Your task to perform on an android device: Find coffee shops on Maps Image 0: 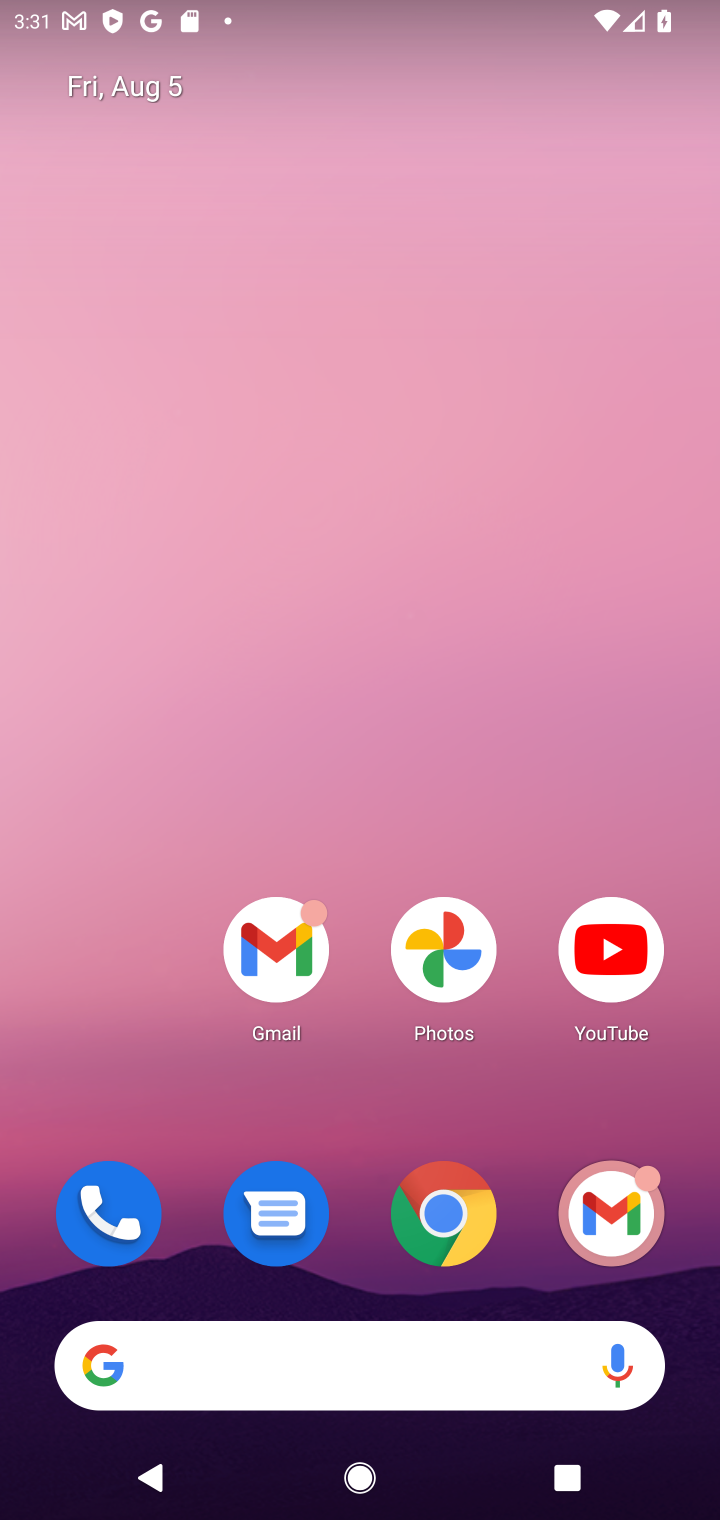
Step 0: drag from (373, 1256) to (273, 151)
Your task to perform on an android device: Find coffee shops on Maps Image 1: 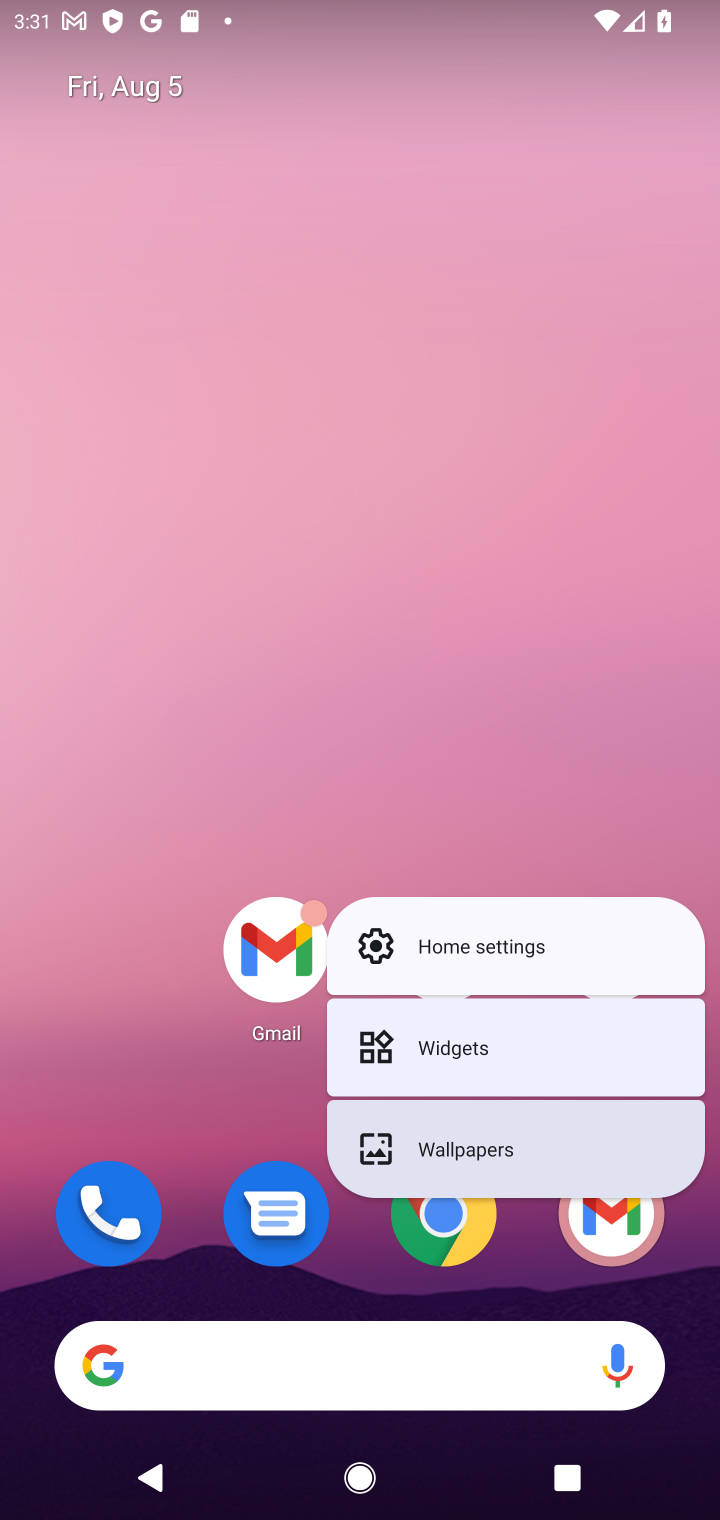
Step 1: click (273, 151)
Your task to perform on an android device: Find coffee shops on Maps Image 2: 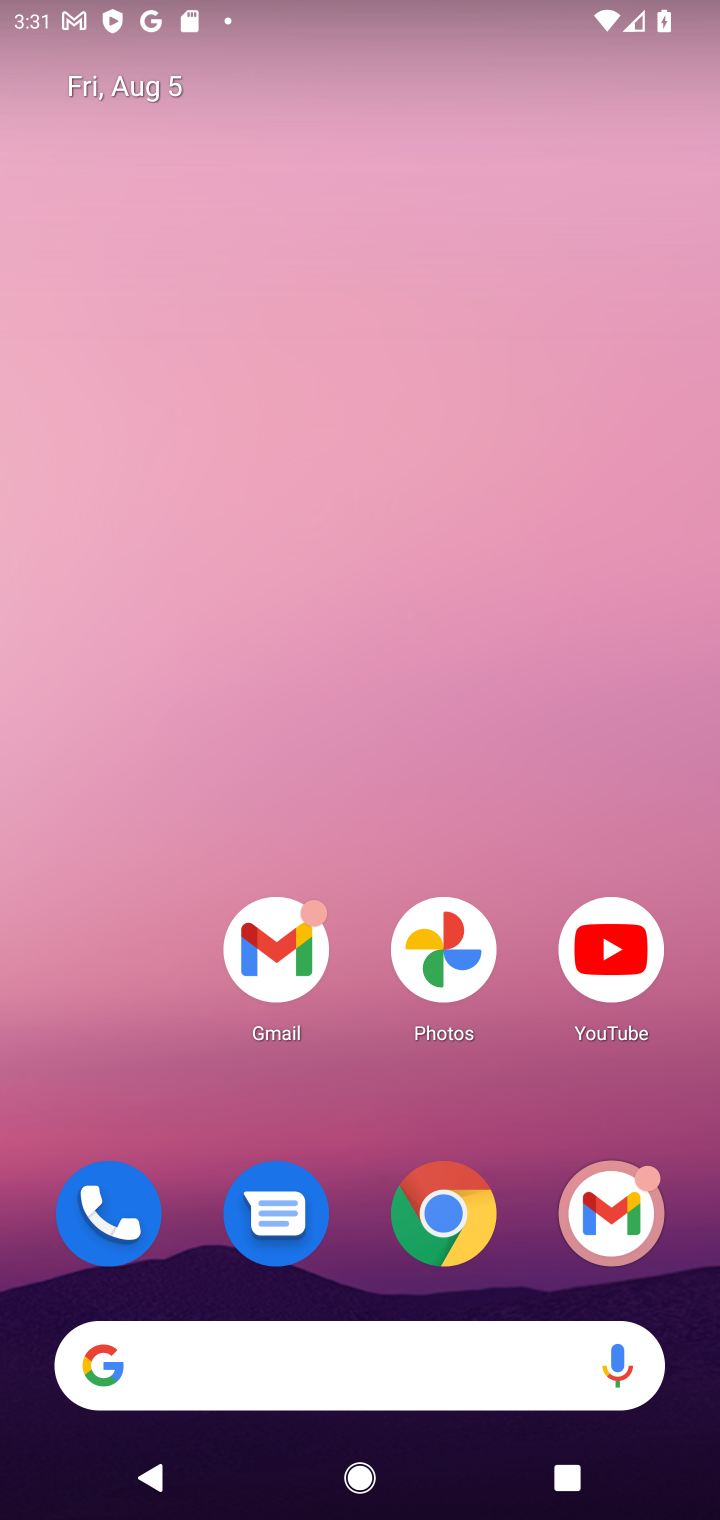
Step 2: drag from (202, 1295) to (408, 231)
Your task to perform on an android device: Find coffee shops on Maps Image 3: 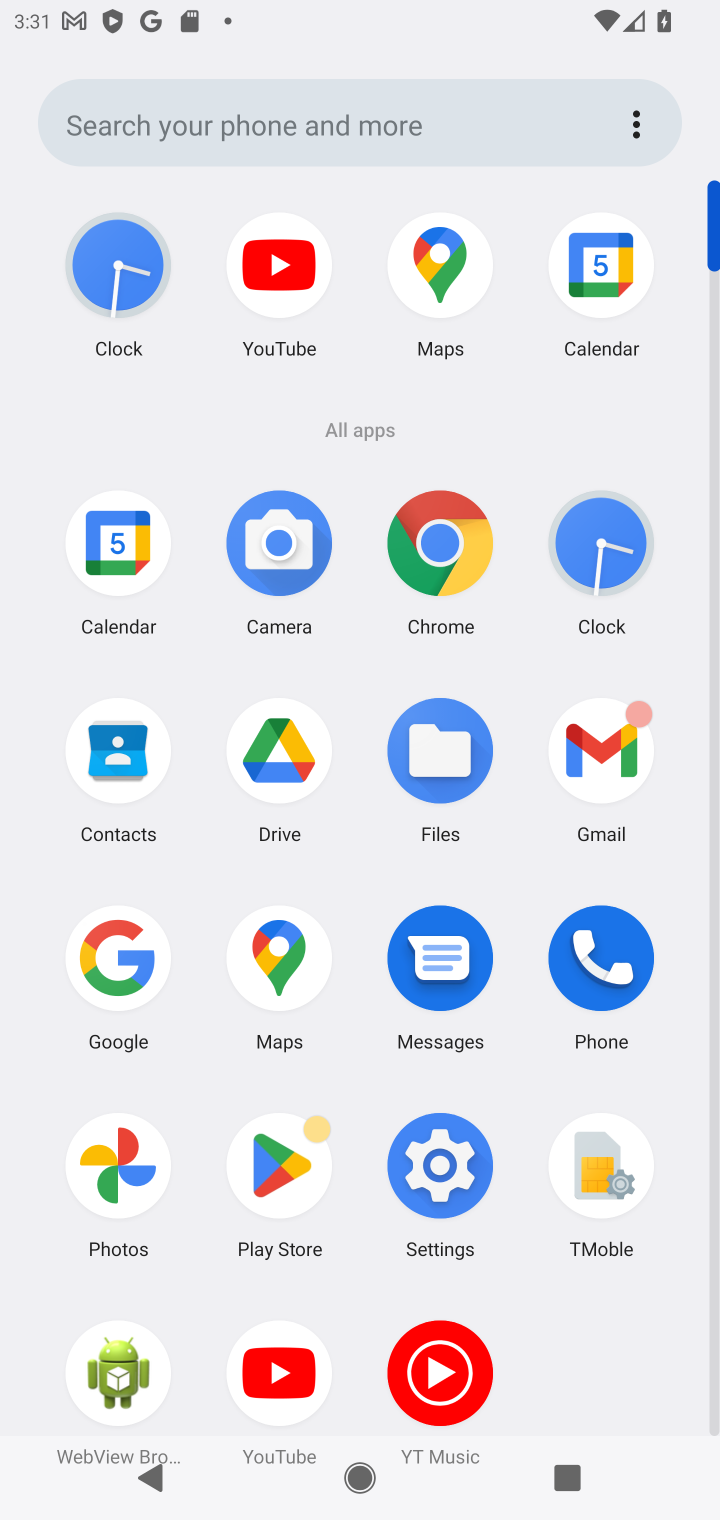
Step 3: click (285, 973)
Your task to perform on an android device: Find coffee shops on Maps Image 4: 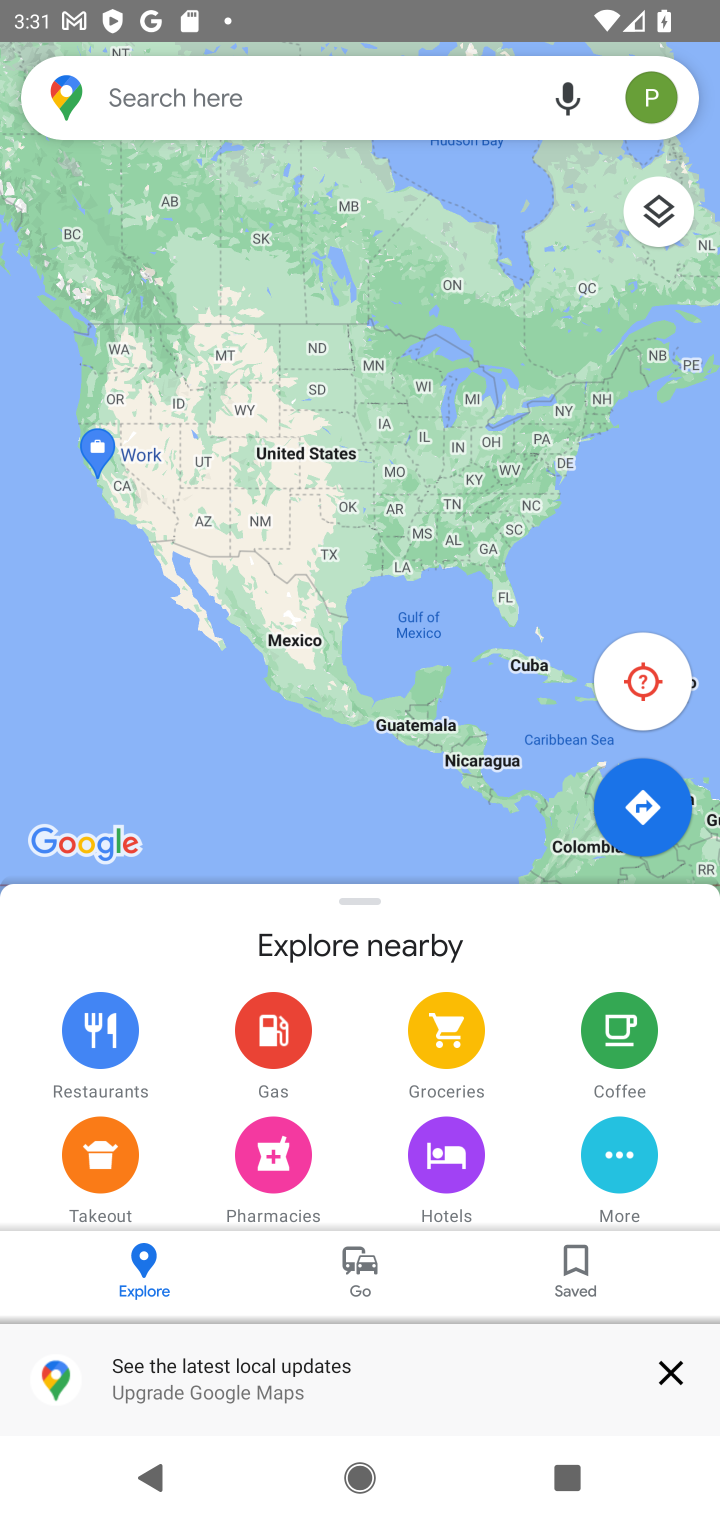
Step 4: click (437, 74)
Your task to perform on an android device: Find coffee shops on Maps Image 5: 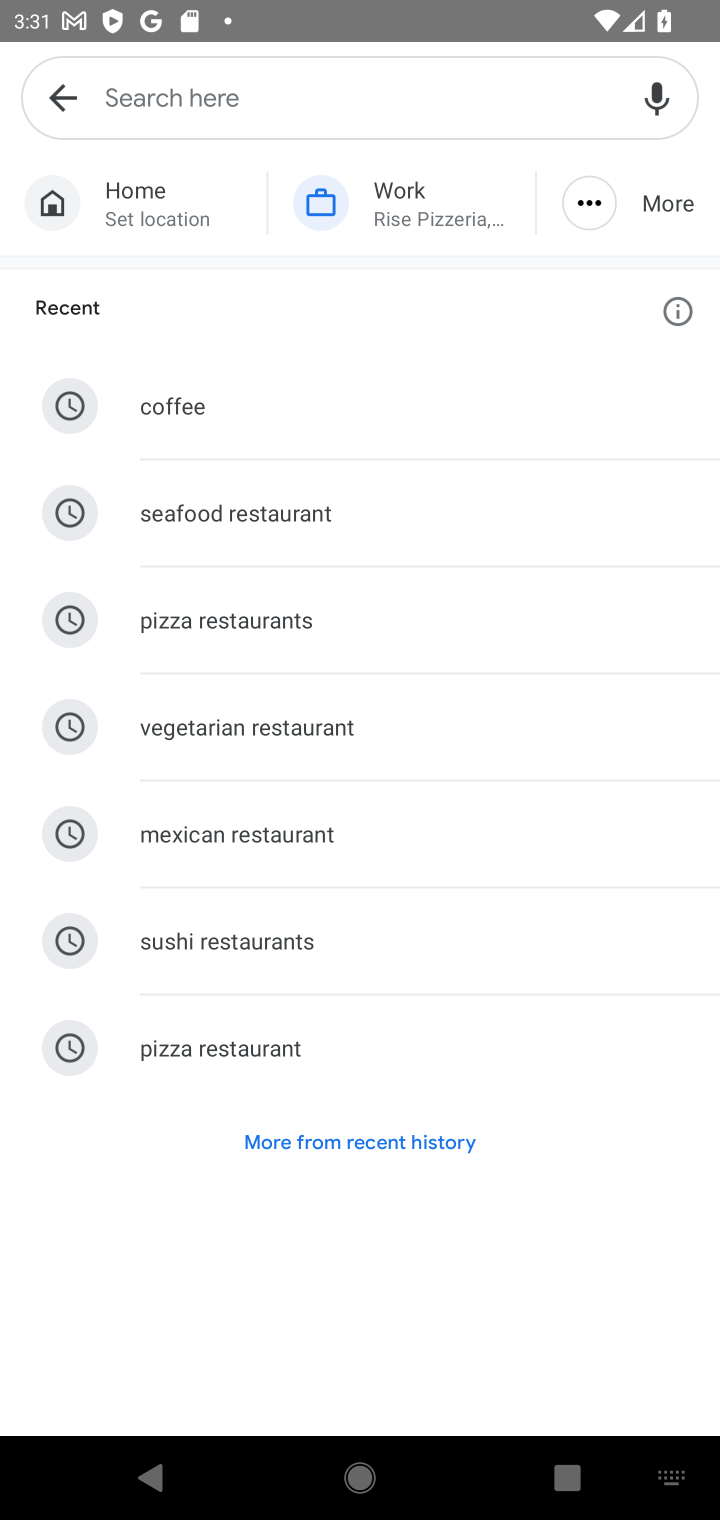
Step 5: click (355, 429)
Your task to perform on an android device: Find coffee shops on Maps Image 6: 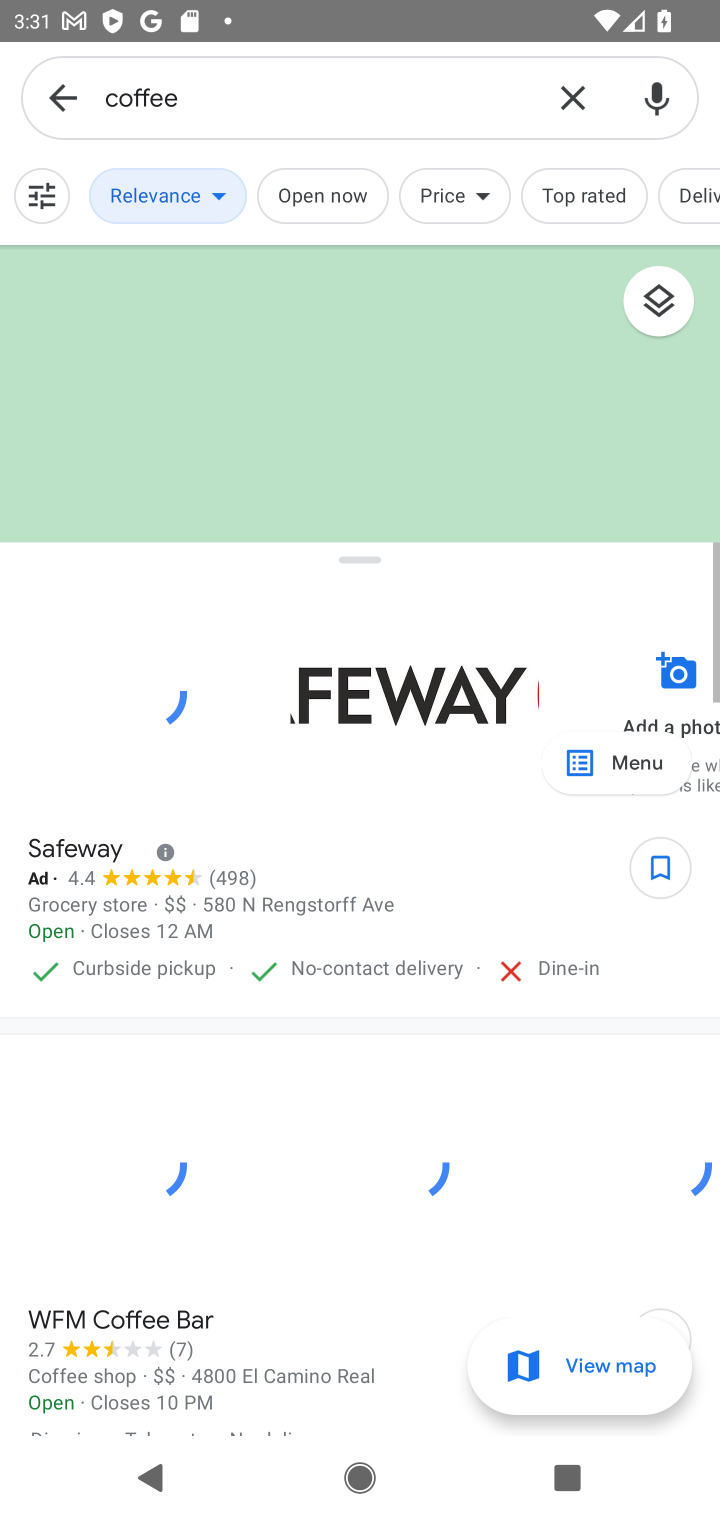
Step 6: task complete